Your task to perform on an android device: What's the weather? Image 0: 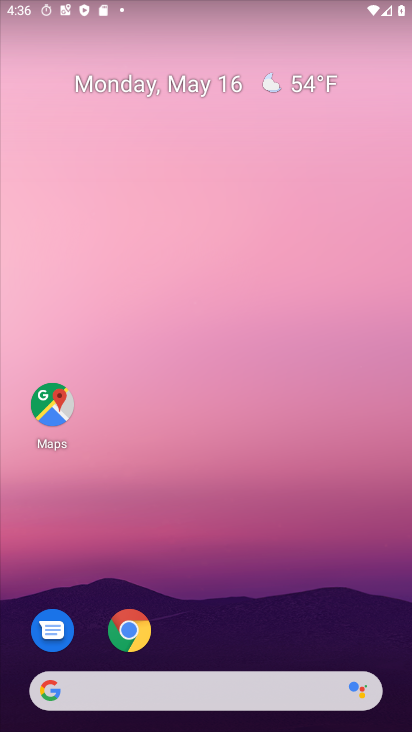
Step 0: drag from (229, 634) to (130, 231)
Your task to perform on an android device: What's the weather? Image 1: 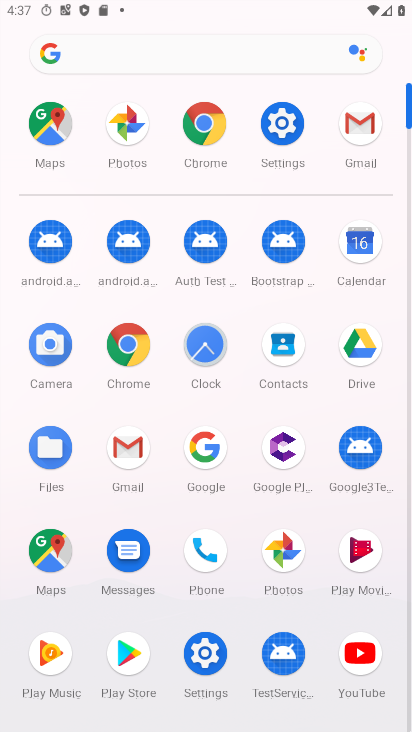
Step 1: click (192, 116)
Your task to perform on an android device: What's the weather? Image 2: 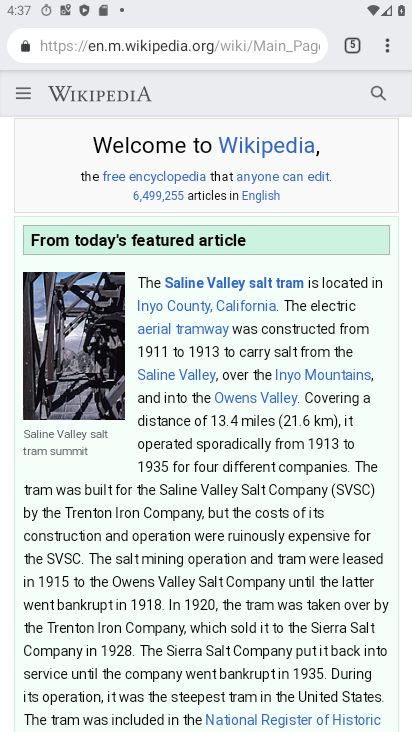
Step 2: click (196, 37)
Your task to perform on an android device: What's the weather? Image 3: 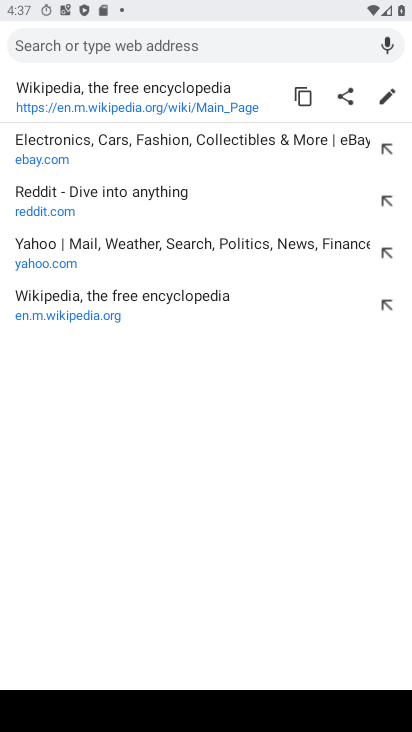
Step 3: type "What's the weather?"
Your task to perform on an android device: What's the weather? Image 4: 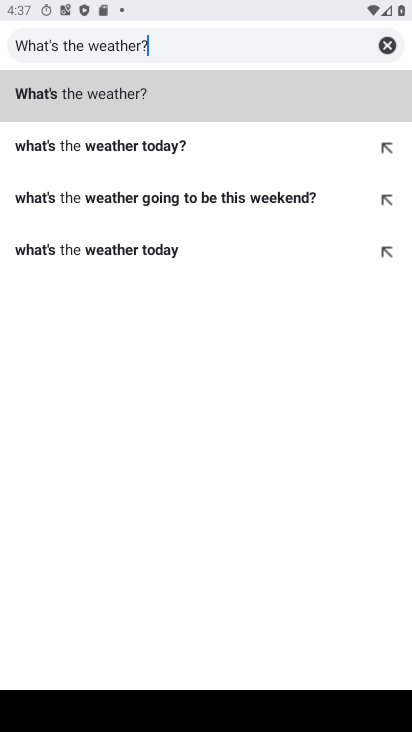
Step 4: click (181, 102)
Your task to perform on an android device: What's the weather? Image 5: 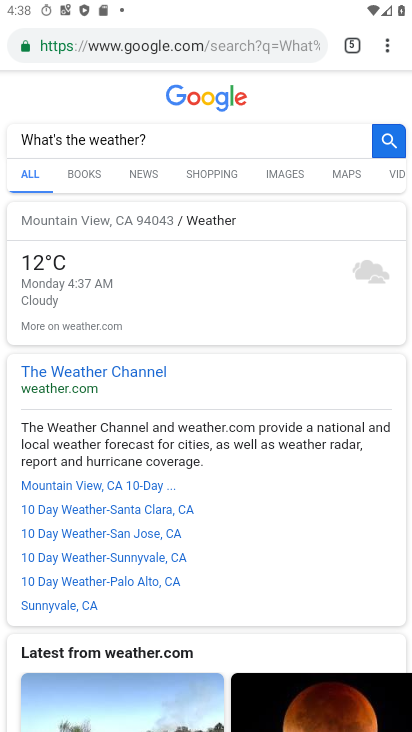
Step 5: task complete